Your task to perform on an android device: Open battery settings Image 0: 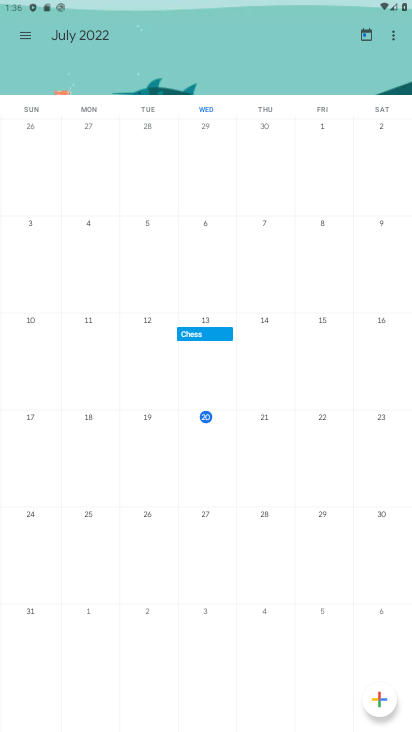
Step 0: press home button
Your task to perform on an android device: Open battery settings Image 1: 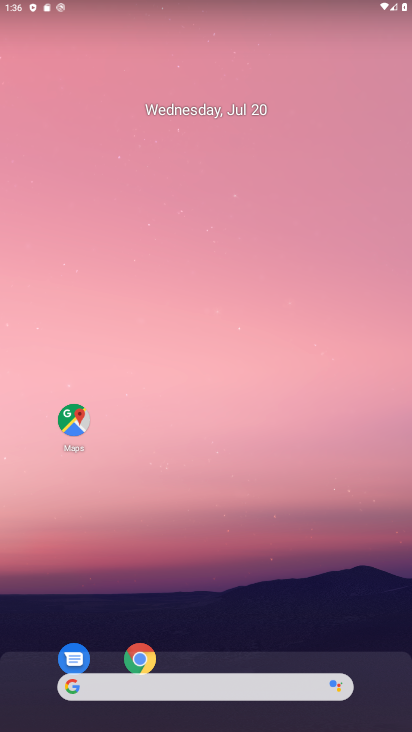
Step 1: drag from (120, 490) to (227, 87)
Your task to perform on an android device: Open battery settings Image 2: 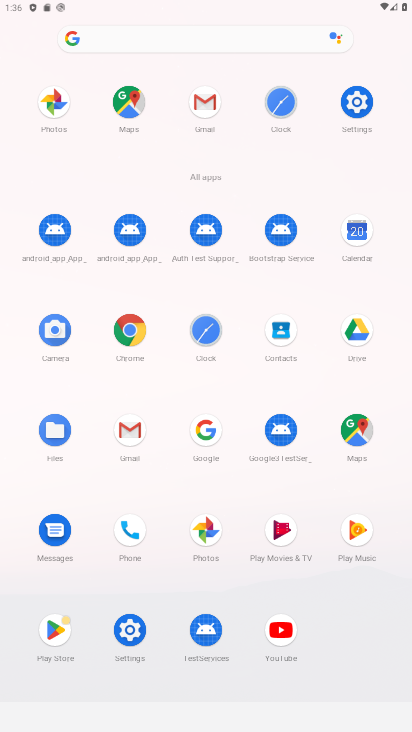
Step 2: click (119, 644)
Your task to perform on an android device: Open battery settings Image 3: 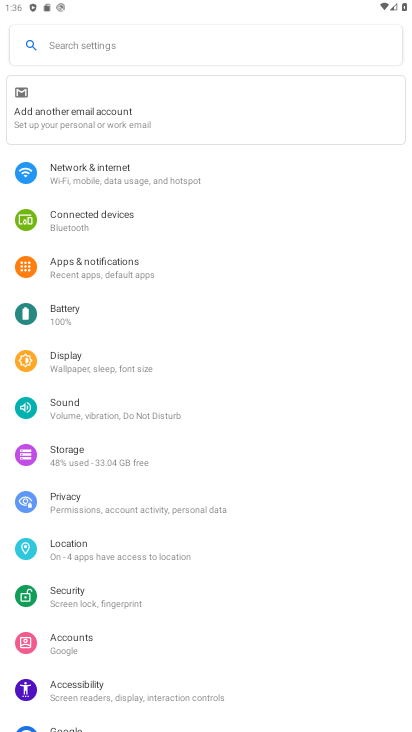
Step 3: click (81, 309)
Your task to perform on an android device: Open battery settings Image 4: 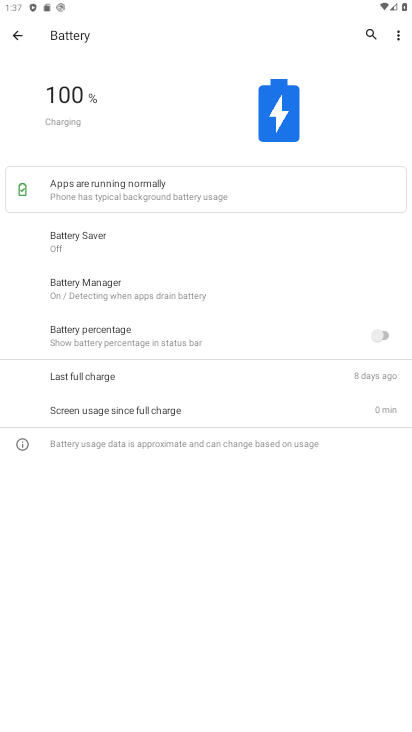
Step 4: task complete